Your task to perform on an android device: turn off wifi Image 0: 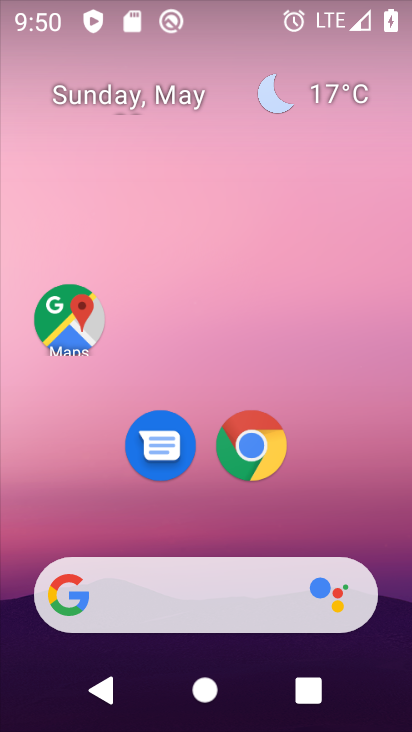
Step 0: drag from (208, 500) to (254, 130)
Your task to perform on an android device: turn off wifi Image 1: 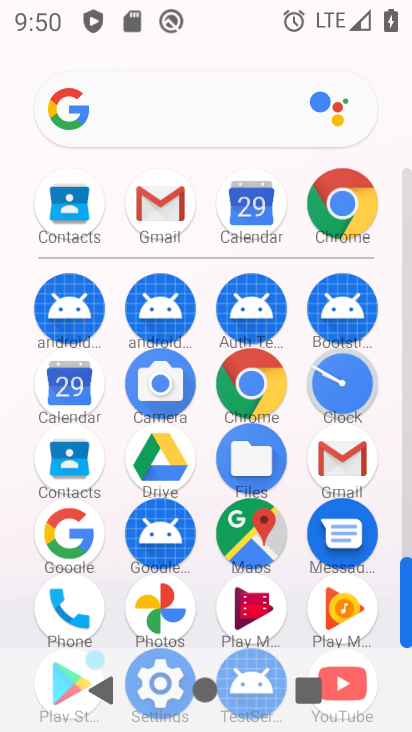
Step 1: drag from (190, 560) to (231, 220)
Your task to perform on an android device: turn off wifi Image 2: 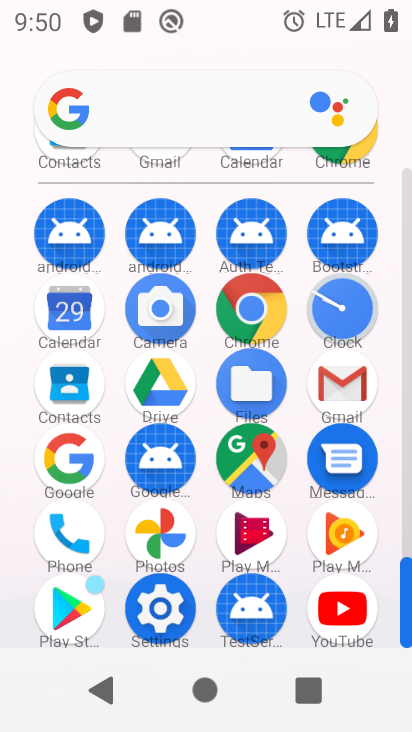
Step 2: click (158, 591)
Your task to perform on an android device: turn off wifi Image 3: 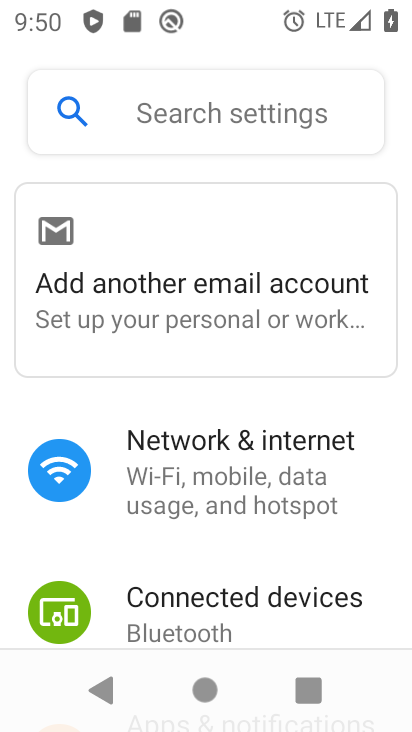
Step 3: click (139, 452)
Your task to perform on an android device: turn off wifi Image 4: 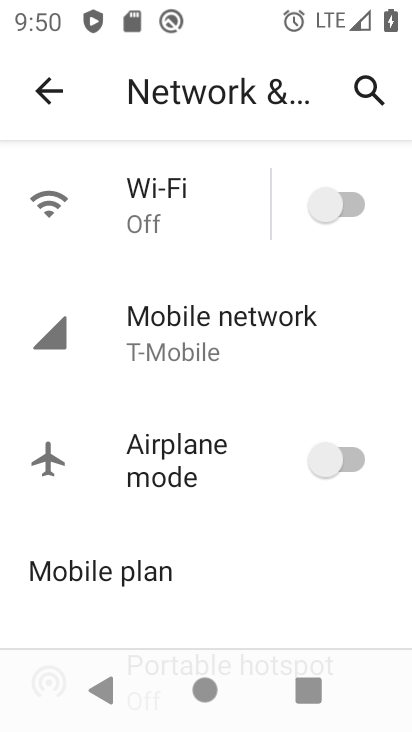
Step 4: click (202, 202)
Your task to perform on an android device: turn off wifi Image 5: 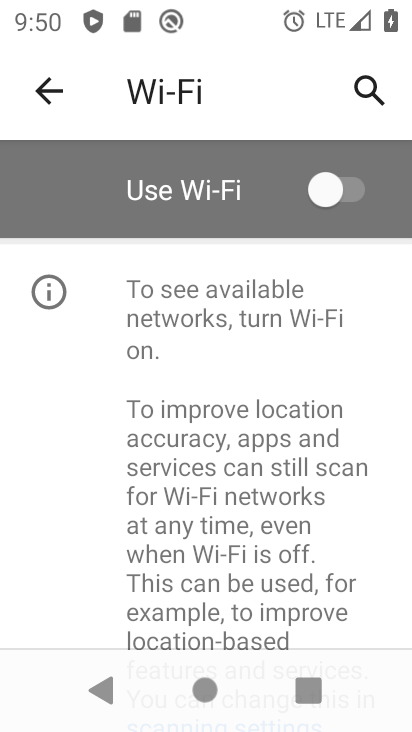
Step 5: task complete